Your task to perform on an android device: Go to Wikipedia Image 0: 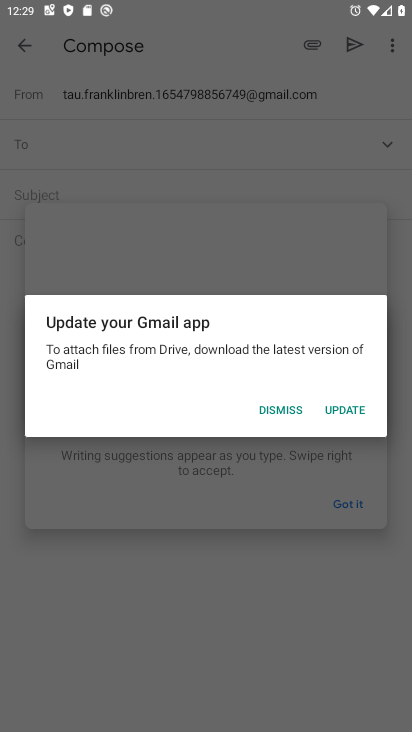
Step 0: press home button
Your task to perform on an android device: Go to Wikipedia Image 1: 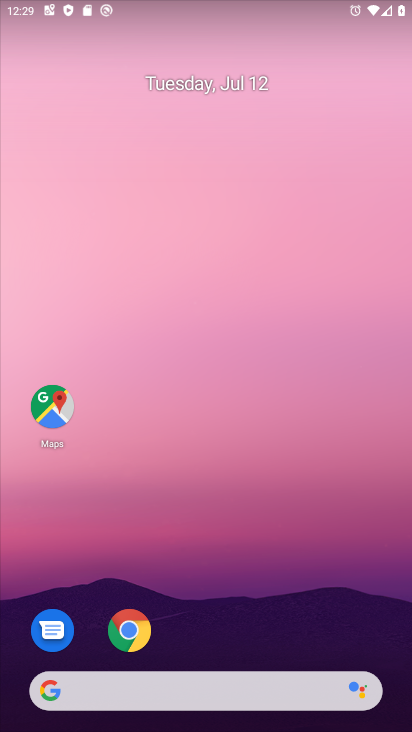
Step 1: click (128, 629)
Your task to perform on an android device: Go to Wikipedia Image 2: 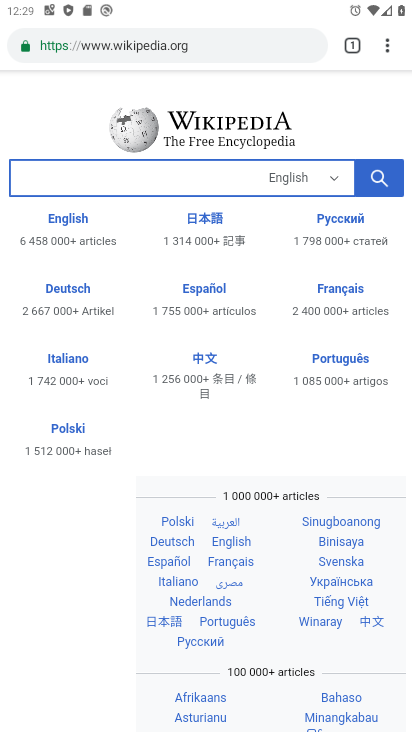
Step 2: task complete